Your task to perform on an android device: turn off translation in the chrome app Image 0: 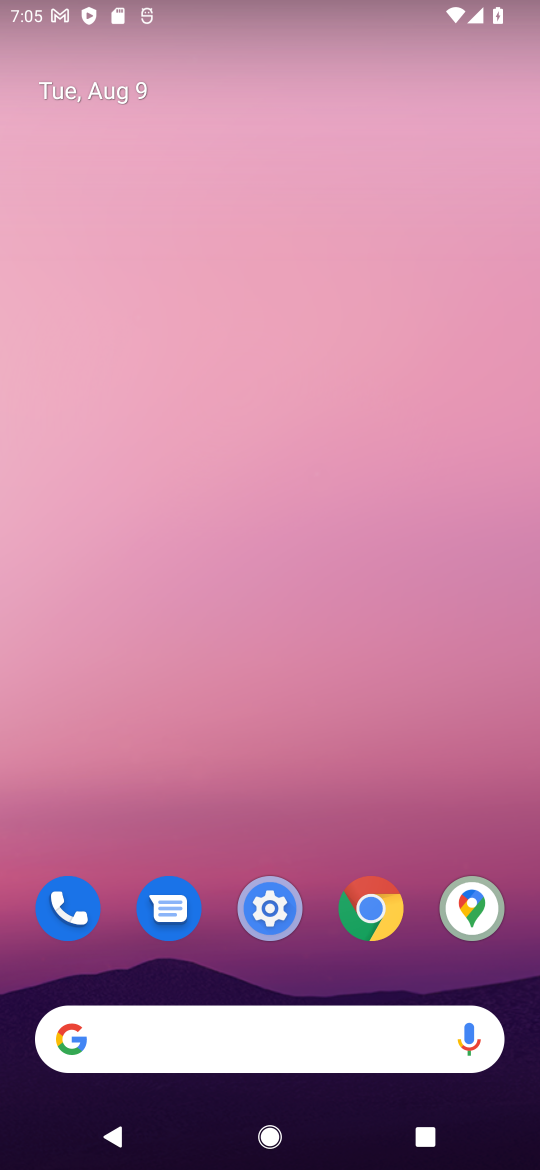
Step 0: click (377, 904)
Your task to perform on an android device: turn off translation in the chrome app Image 1: 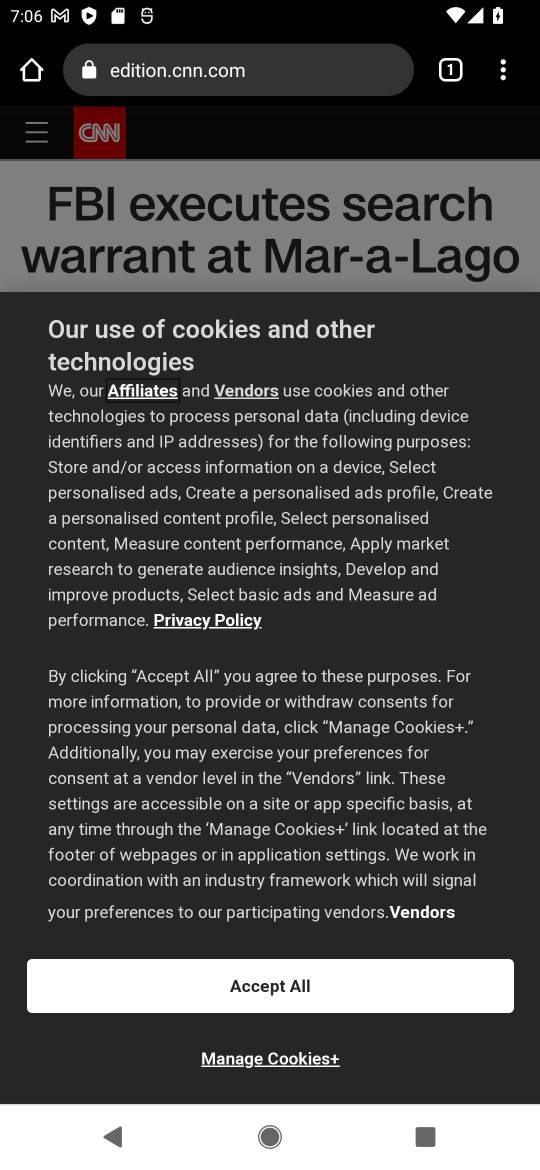
Step 1: drag from (501, 76) to (299, 948)
Your task to perform on an android device: turn off translation in the chrome app Image 2: 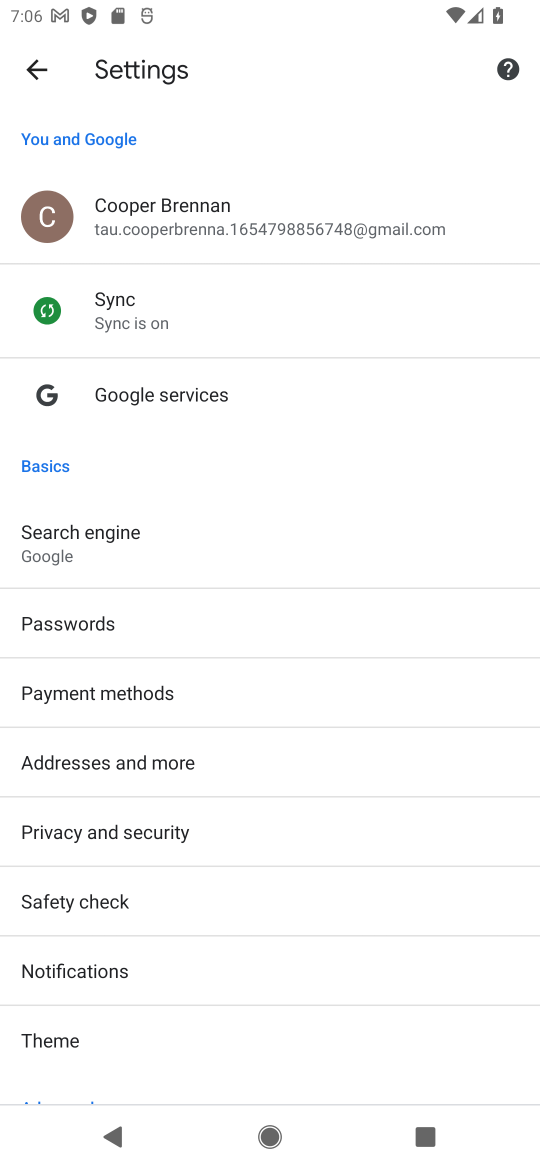
Step 2: drag from (123, 1013) to (99, 536)
Your task to perform on an android device: turn off translation in the chrome app Image 3: 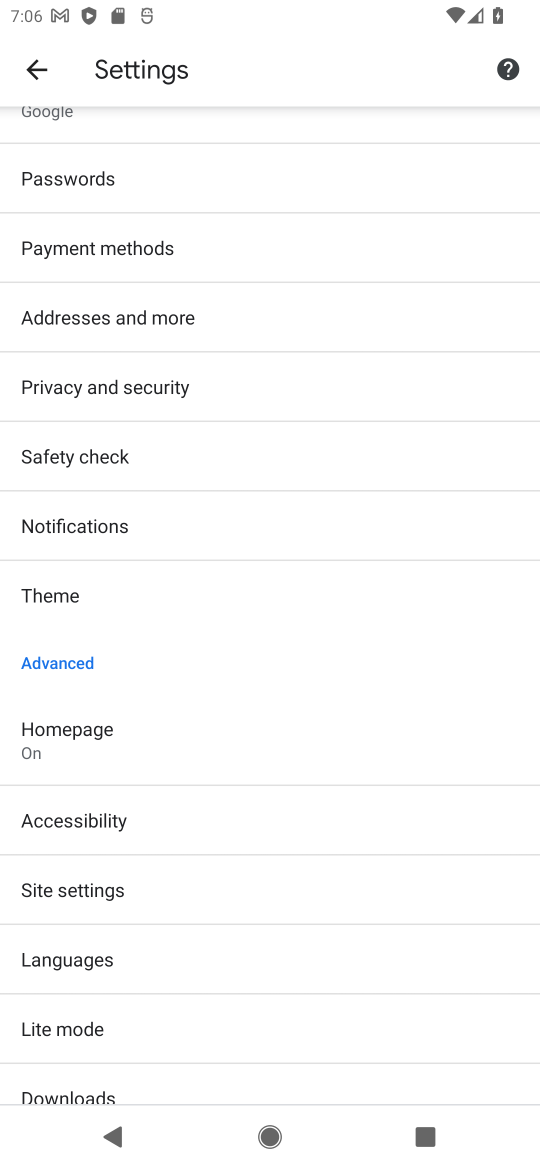
Step 3: click (103, 953)
Your task to perform on an android device: turn off translation in the chrome app Image 4: 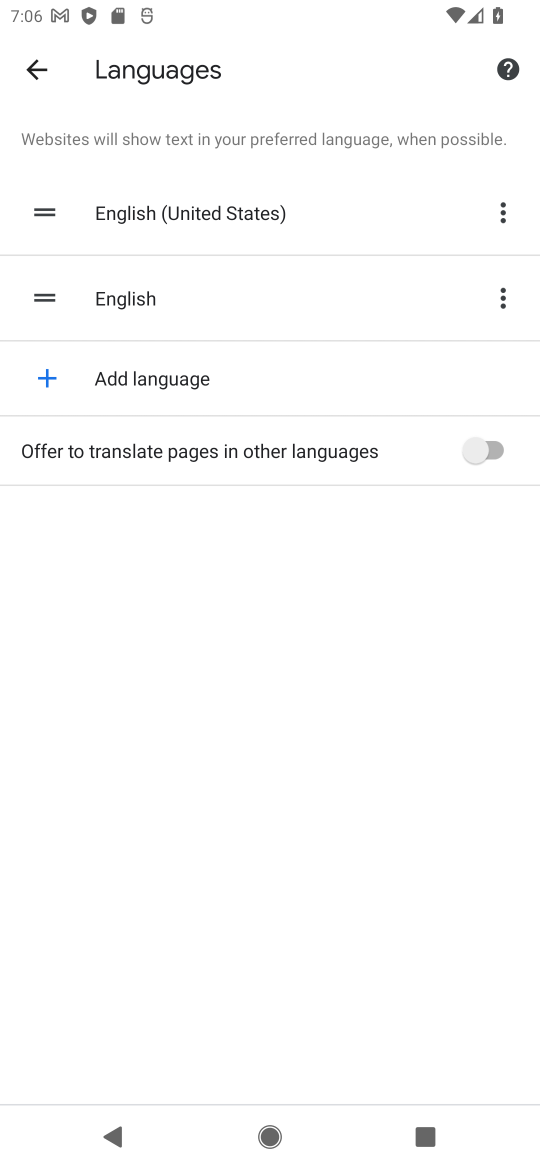
Step 4: task complete